Your task to perform on an android device: add a label to a message in the gmail app Image 0: 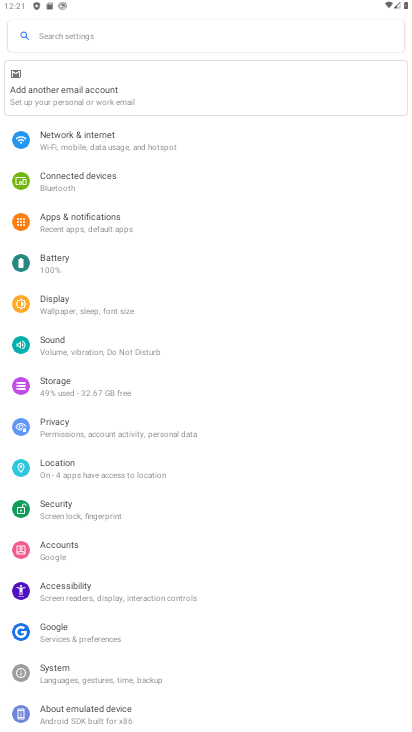
Step 0: press home button
Your task to perform on an android device: add a label to a message in the gmail app Image 1: 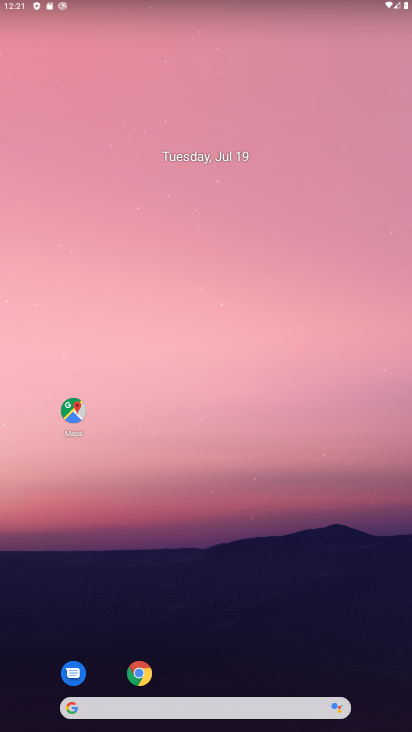
Step 1: drag from (363, 677) to (255, 150)
Your task to perform on an android device: add a label to a message in the gmail app Image 2: 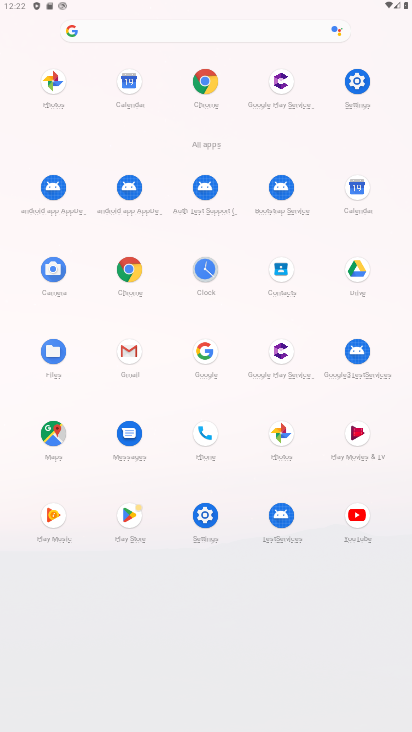
Step 2: click (135, 357)
Your task to perform on an android device: add a label to a message in the gmail app Image 3: 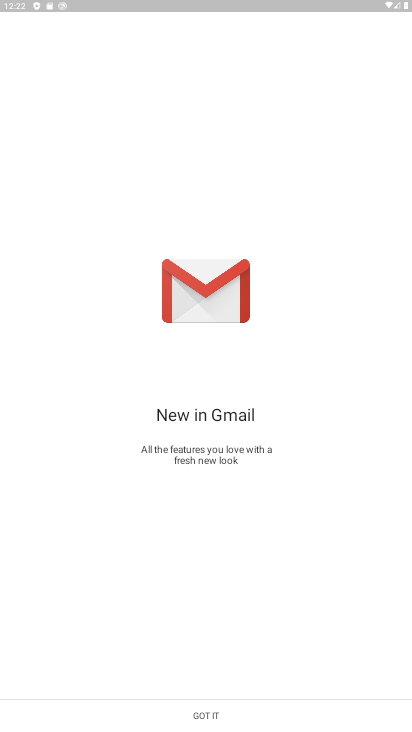
Step 3: click (210, 716)
Your task to perform on an android device: add a label to a message in the gmail app Image 4: 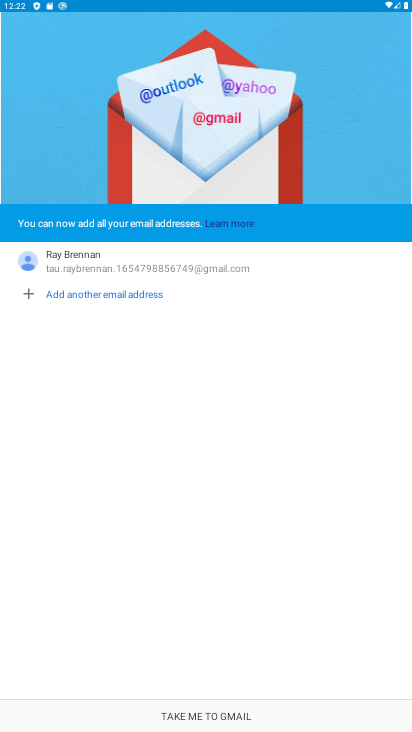
Step 4: click (210, 716)
Your task to perform on an android device: add a label to a message in the gmail app Image 5: 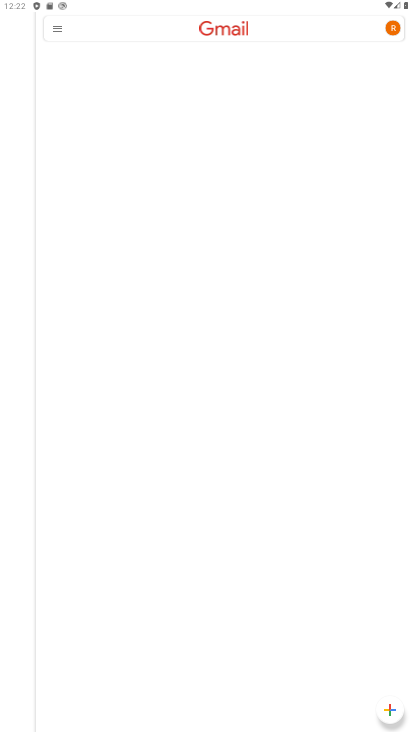
Step 5: click (210, 716)
Your task to perform on an android device: add a label to a message in the gmail app Image 6: 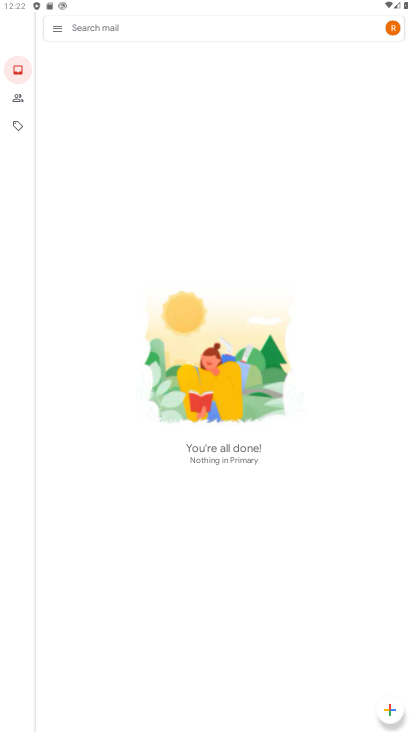
Step 6: task complete